Your task to perform on an android device: empty trash in google photos Image 0: 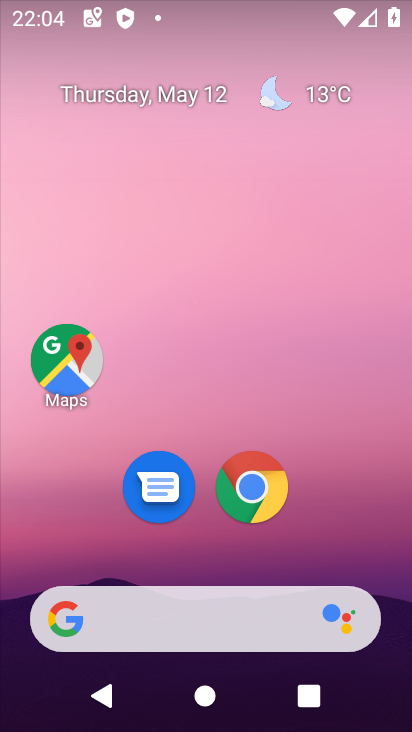
Step 0: drag from (199, 544) to (226, 299)
Your task to perform on an android device: empty trash in google photos Image 1: 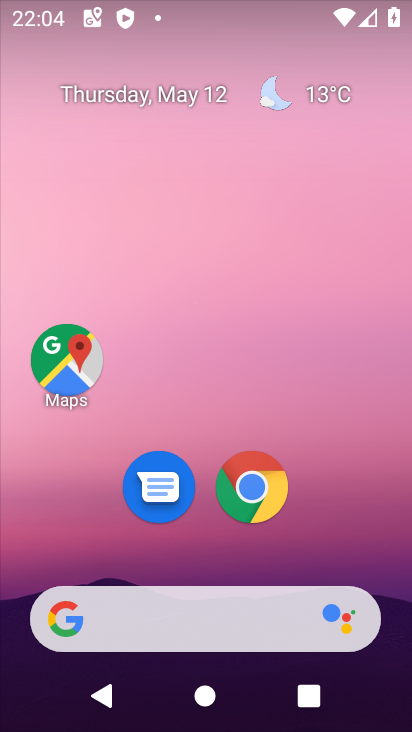
Step 1: drag from (212, 578) to (269, 98)
Your task to perform on an android device: empty trash in google photos Image 2: 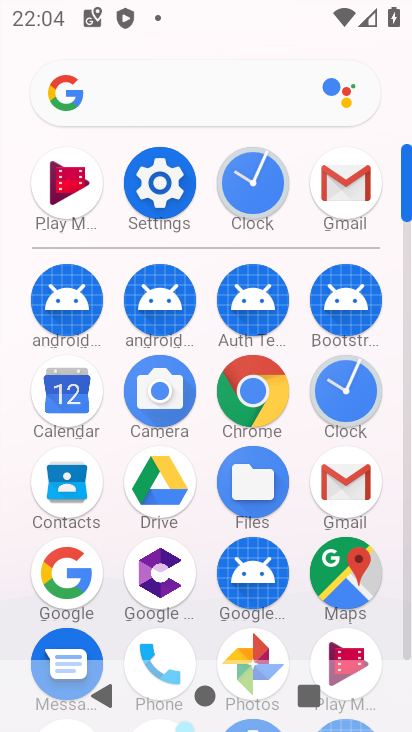
Step 2: click (253, 646)
Your task to perform on an android device: empty trash in google photos Image 3: 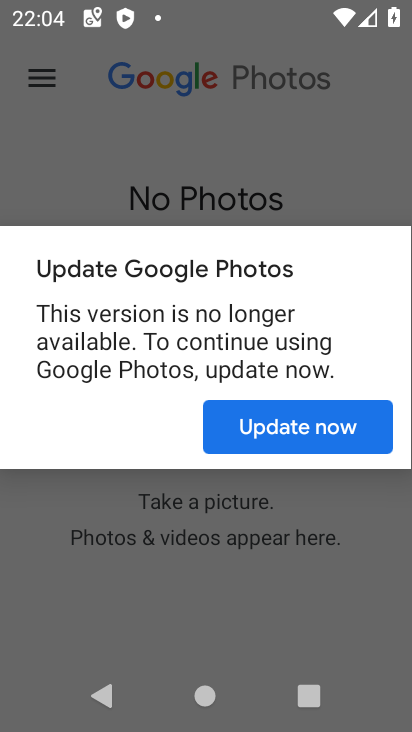
Step 3: click (309, 438)
Your task to perform on an android device: empty trash in google photos Image 4: 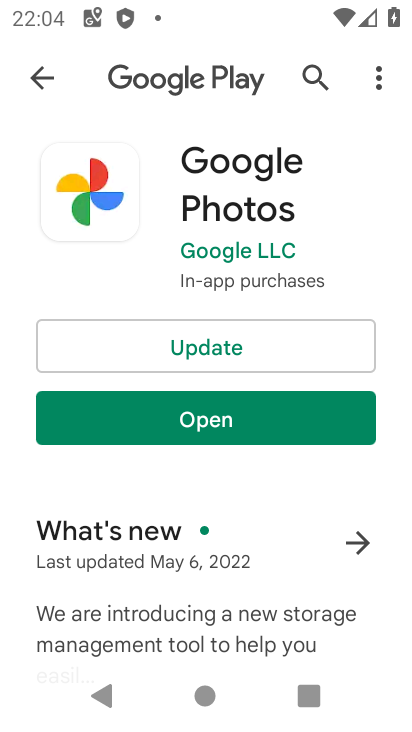
Step 4: click (189, 434)
Your task to perform on an android device: empty trash in google photos Image 5: 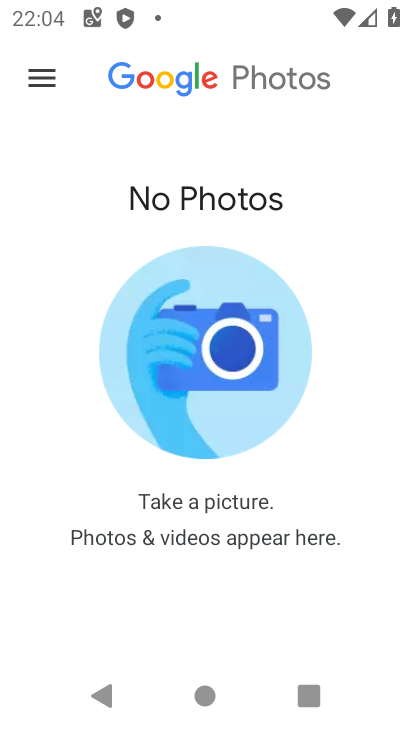
Step 5: click (52, 75)
Your task to perform on an android device: empty trash in google photos Image 6: 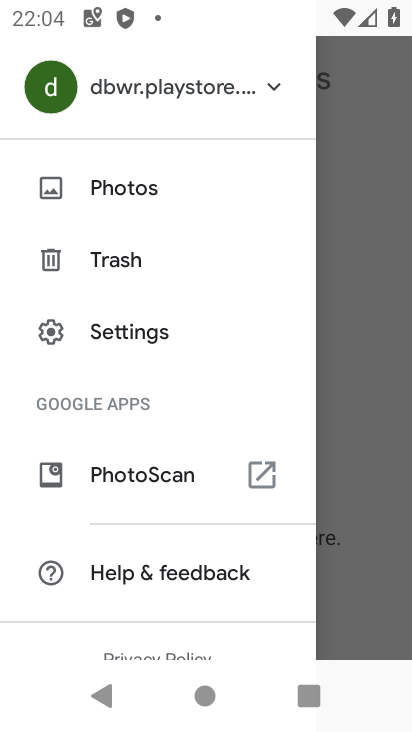
Step 6: click (105, 282)
Your task to perform on an android device: empty trash in google photos Image 7: 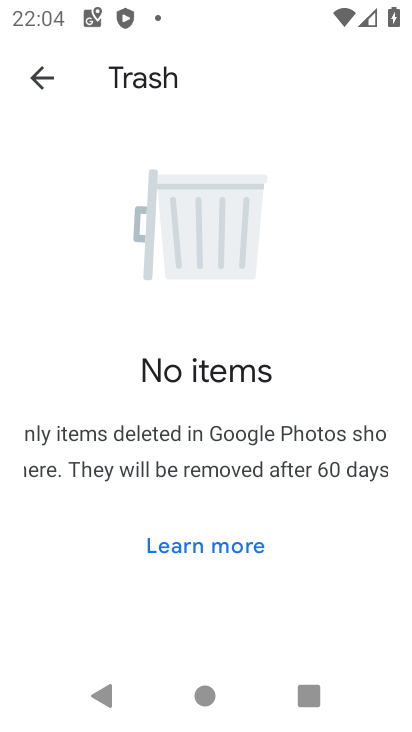
Step 7: task complete